Your task to perform on an android device: turn off sleep mode Image 0: 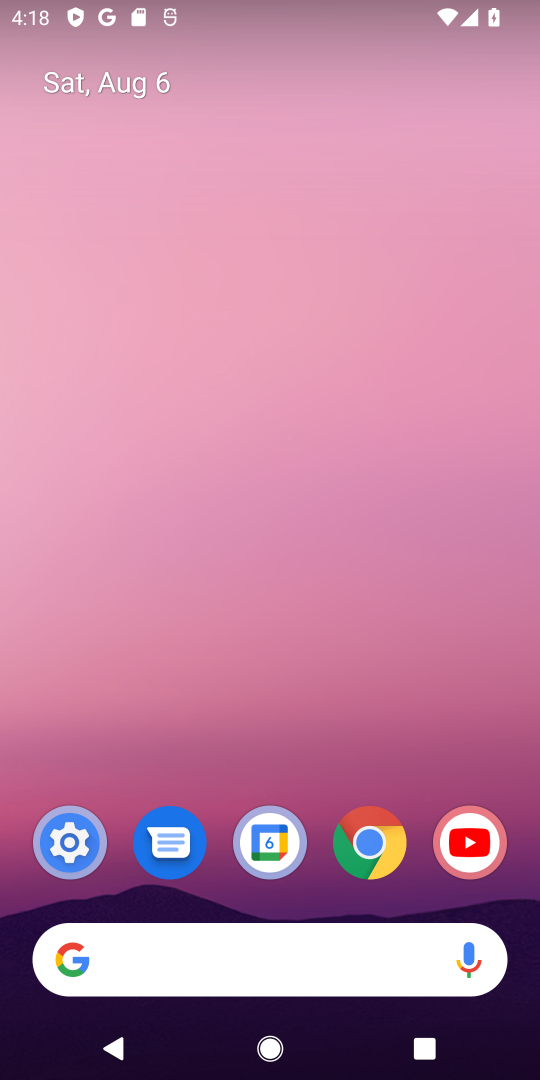
Step 0: click (54, 842)
Your task to perform on an android device: turn off sleep mode Image 1: 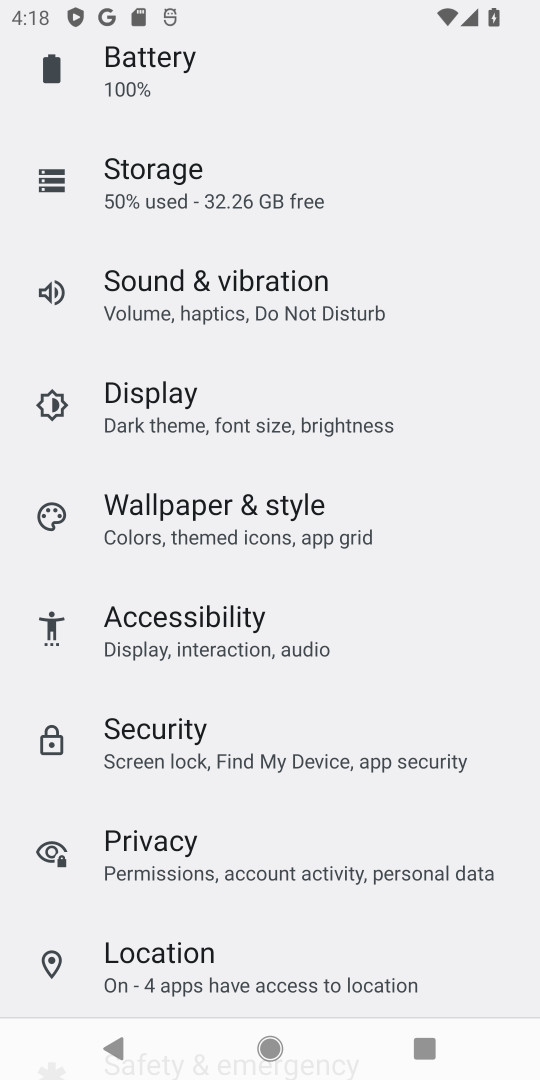
Step 1: drag from (490, 915) to (478, 374)
Your task to perform on an android device: turn off sleep mode Image 2: 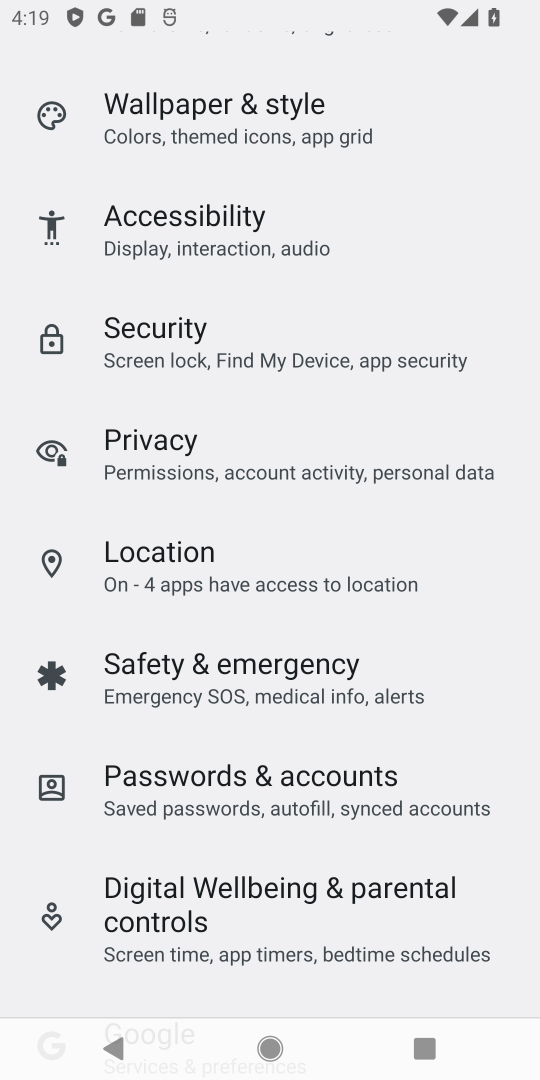
Step 2: drag from (276, 206) to (314, 766)
Your task to perform on an android device: turn off sleep mode Image 3: 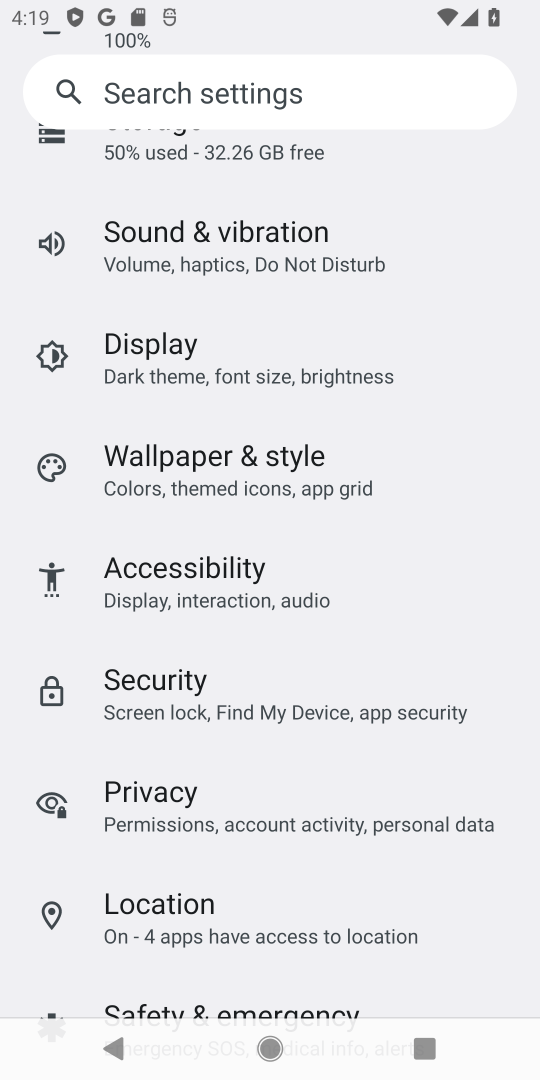
Step 3: click (216, 338)
Your task to perform on an android device: turn off sleep mode Image 4: 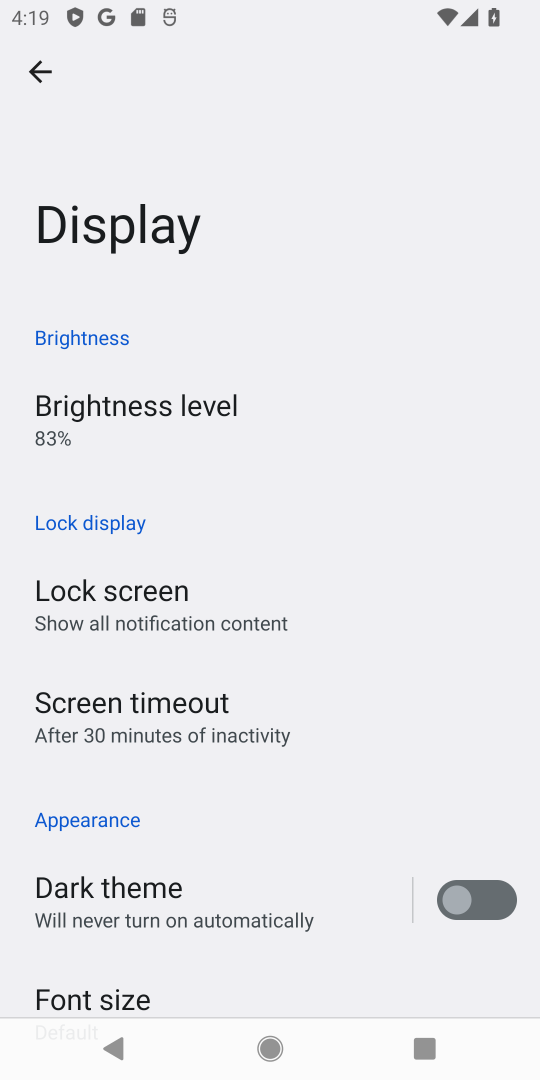
Step 4: drag from (322, 935) to (332, 337)
Your task to perform on an android device: turn off sleep mode Image 5: 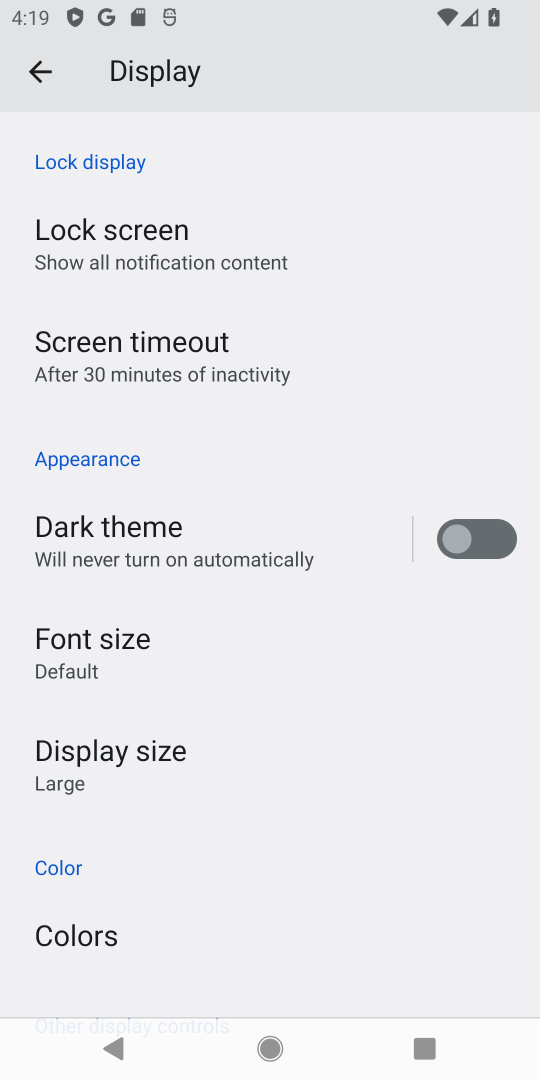
Step 5: click (94, 347)
Your task to perform on an android device: turn off sleep mode Image 6: 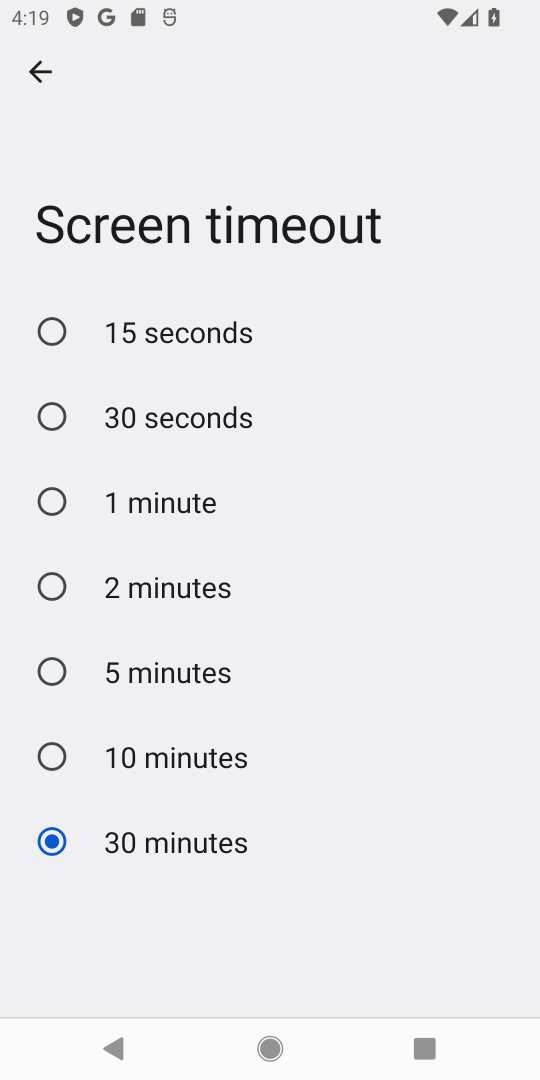
Step 6: task complete